Your task to perform on an android device: move an email to a new category in the gmail app Image 0: 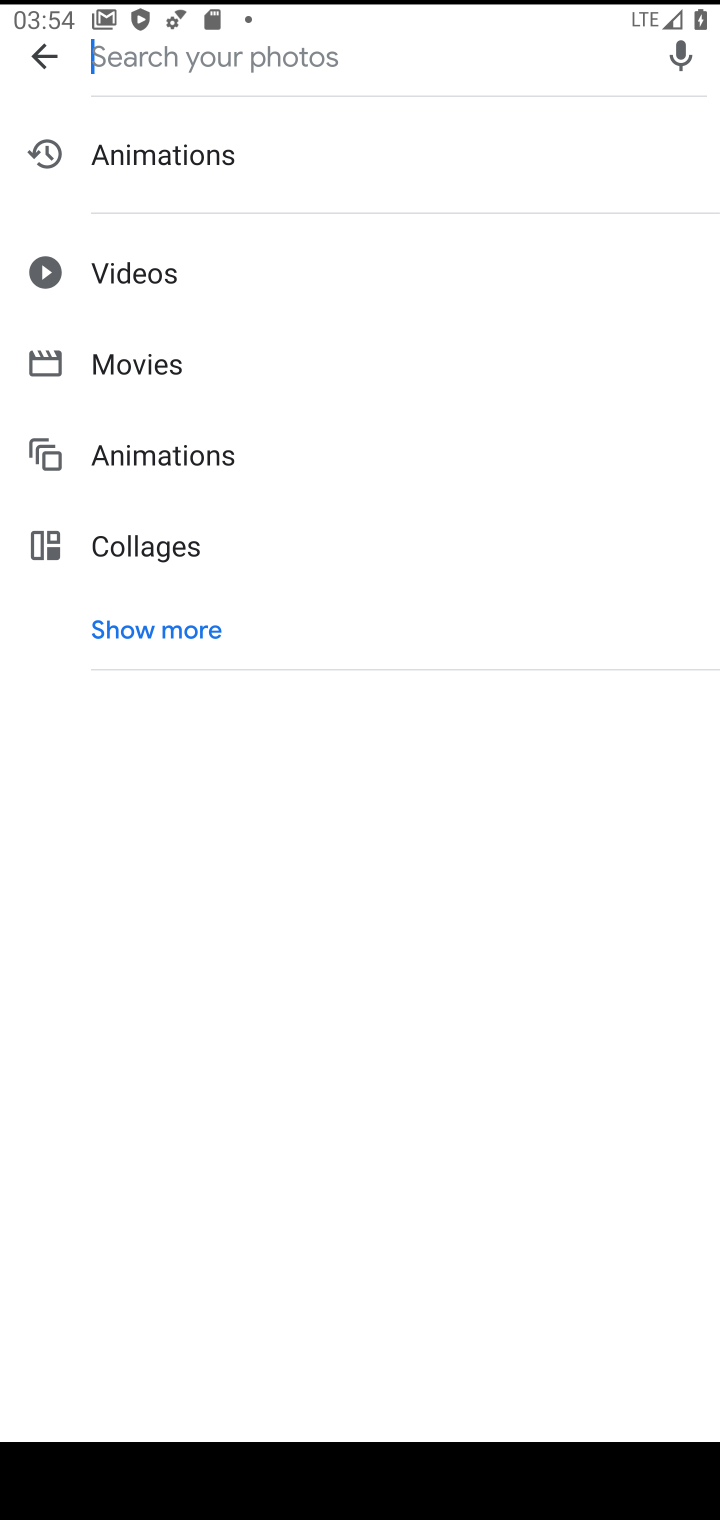
Step 0: click (34, 38)
Your task to perform on an android device: move an email to a new category in the gmail app Image 1: 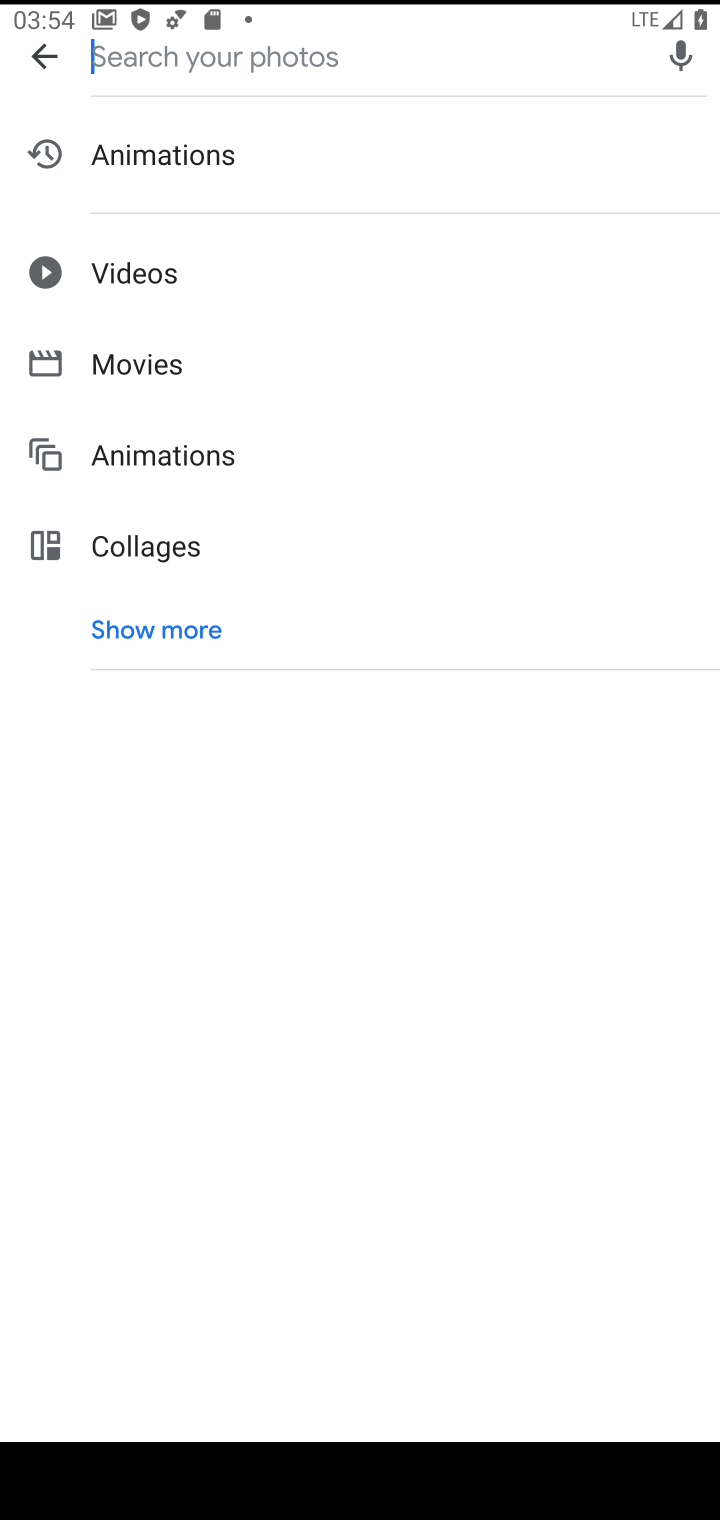
Step 1: click (37, 38)
Your task to perform on an android device: move an email to a new category in the gmail app Image 2: 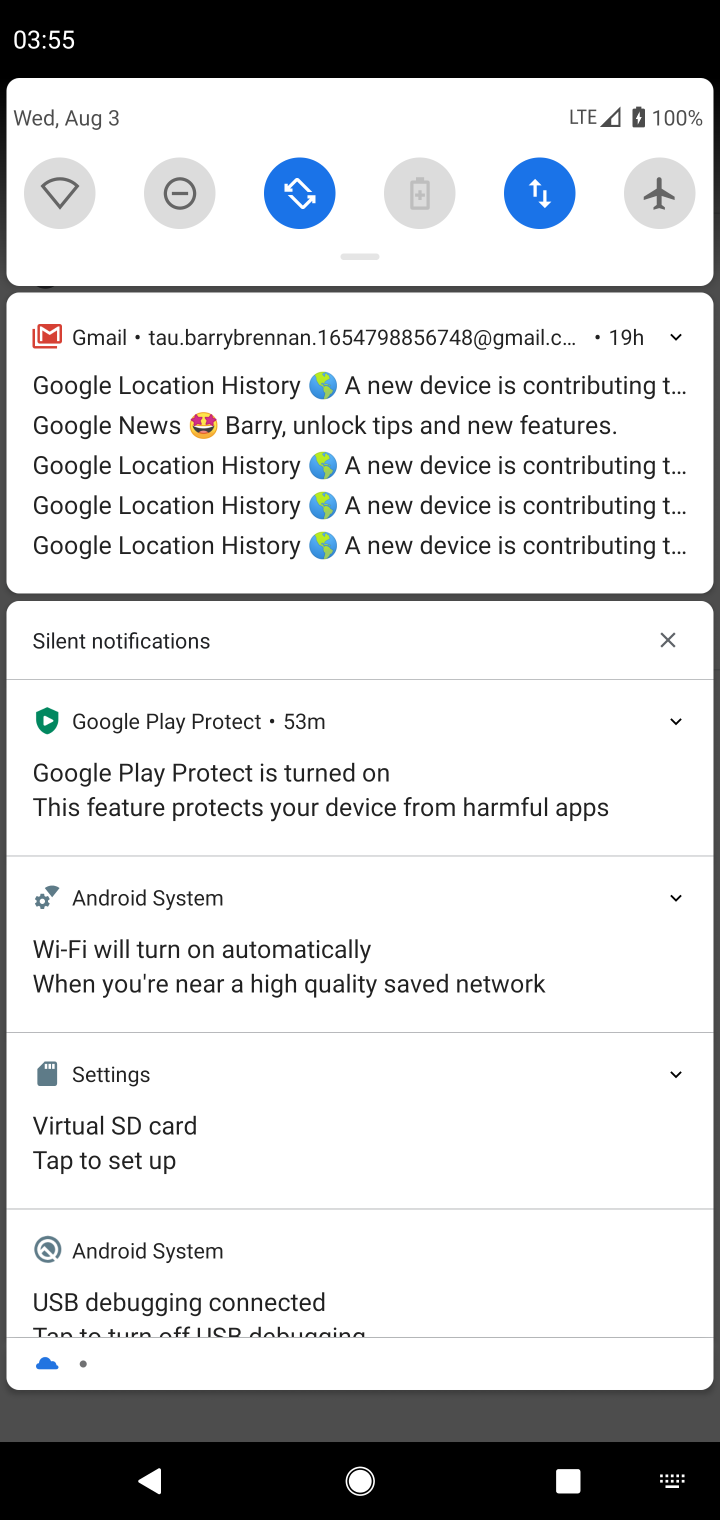
Step 2: press back button
Your task to perform on an android device: move an email to a new category in the gmail app Image 3: 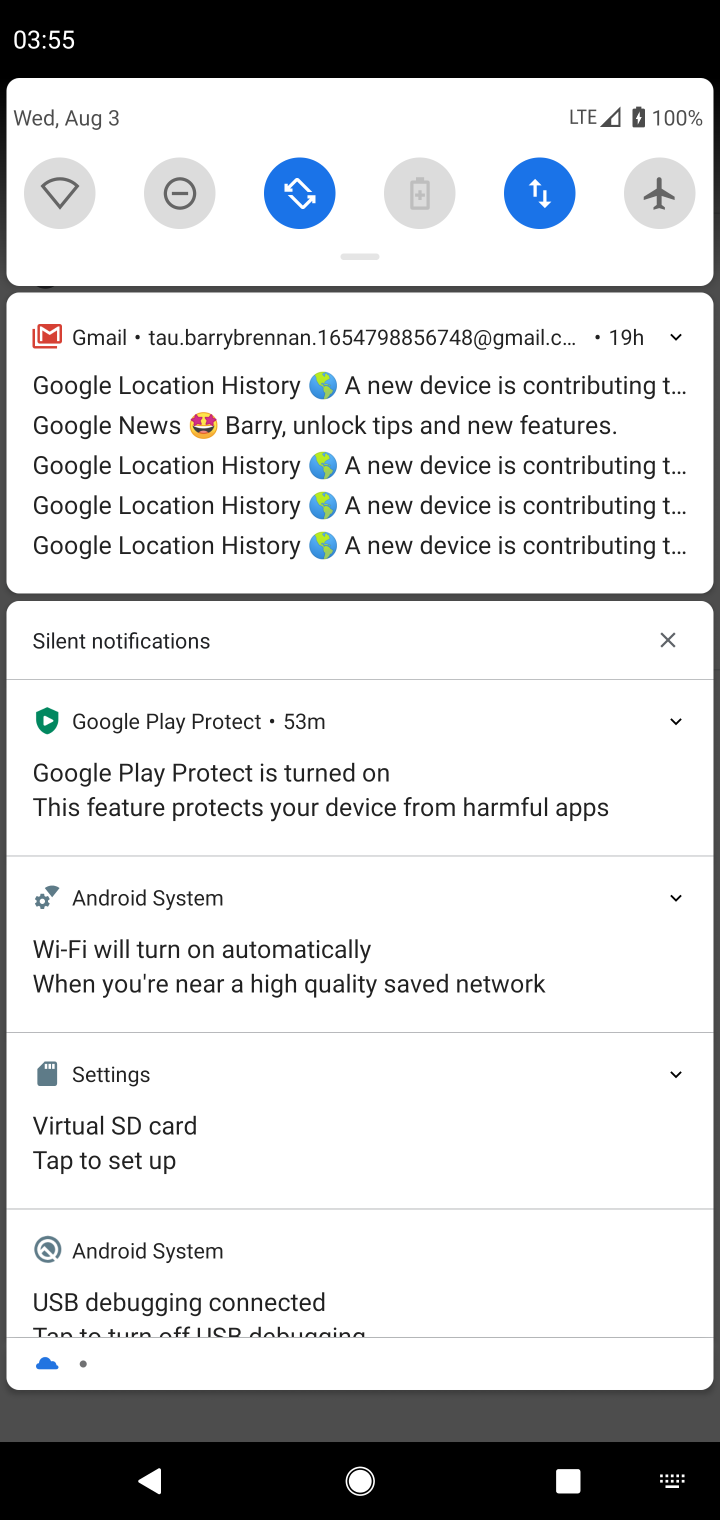
Step 3: press back button
Your task to perform on an android device: move an email to a new category in the gmail app Image 4: 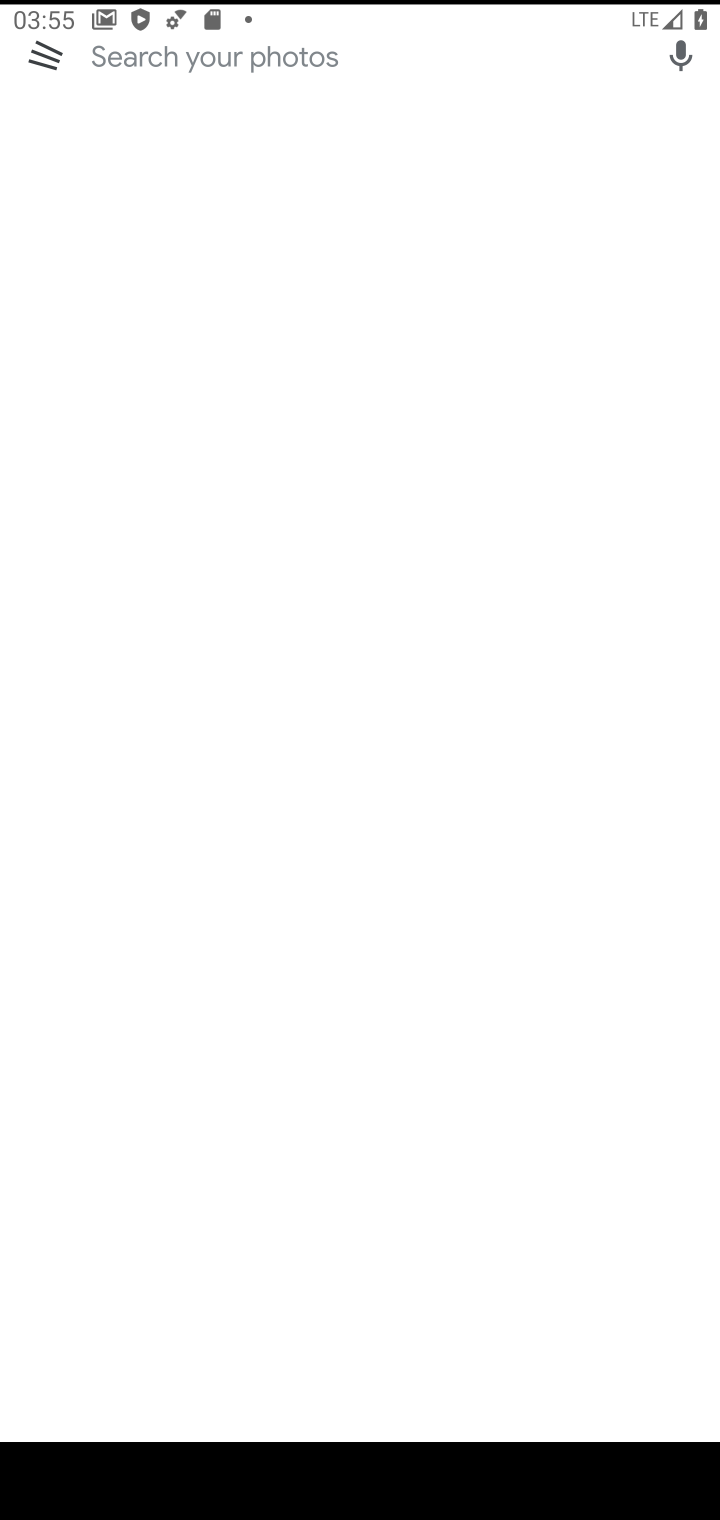
Step 4: press home button
Your task to perform on an android device: move an email to a new category in the gmail app Image 5: 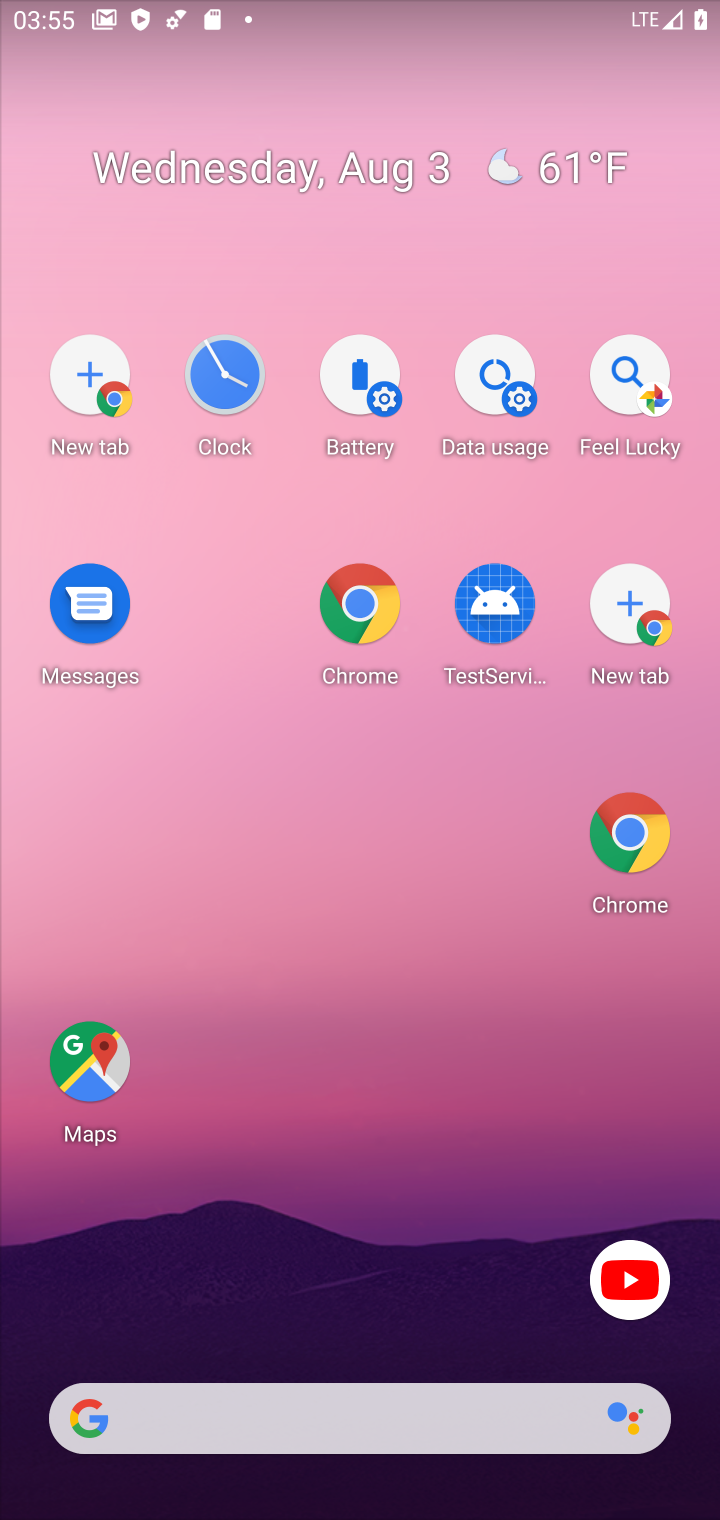
Step 5: drag from (486, 735) to (468, 646)
Your task to perform on an android device: move an email to a new category in the gmail app Image 6: 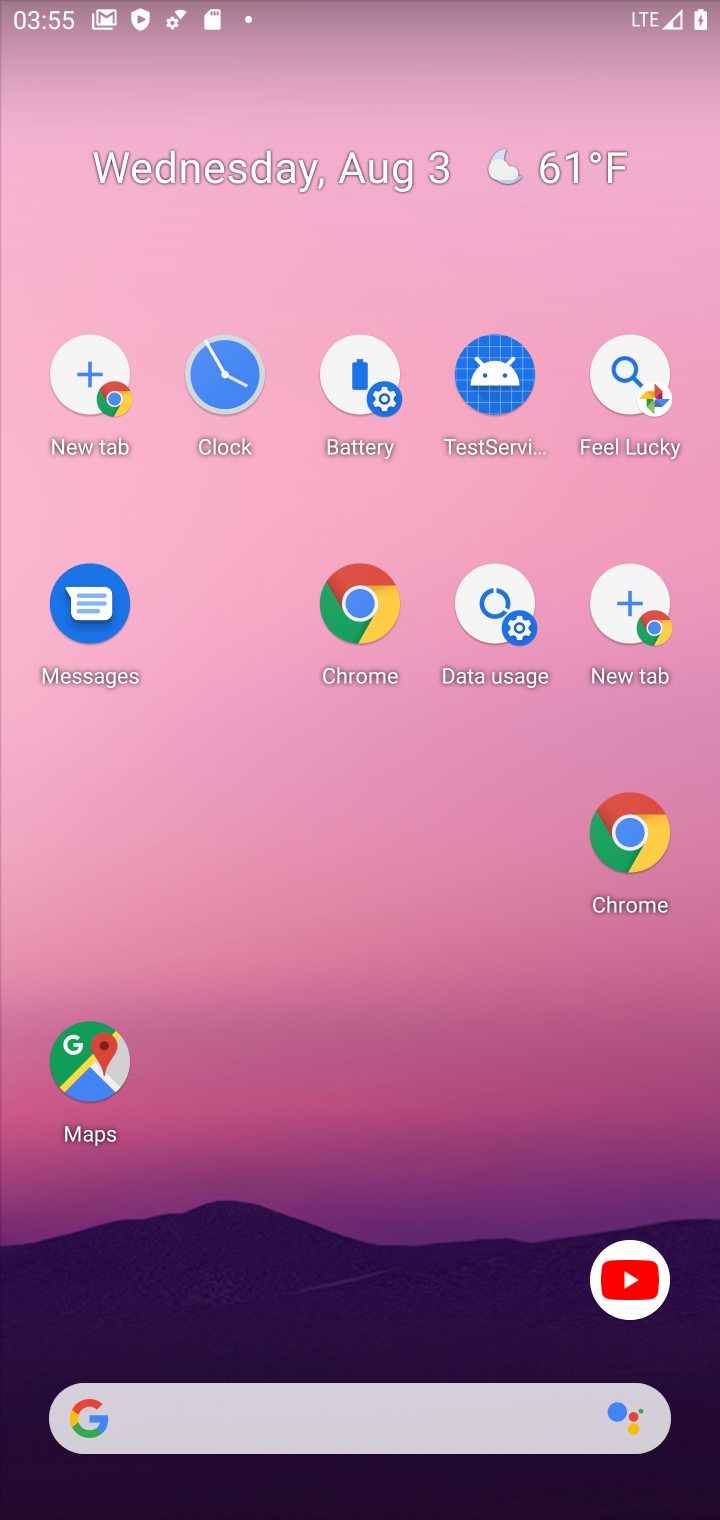
Step 6: drag from (347, 1068) to (399, 354)
Your task to perform on an android device: move an email to a new category in the gmail app Image 7: 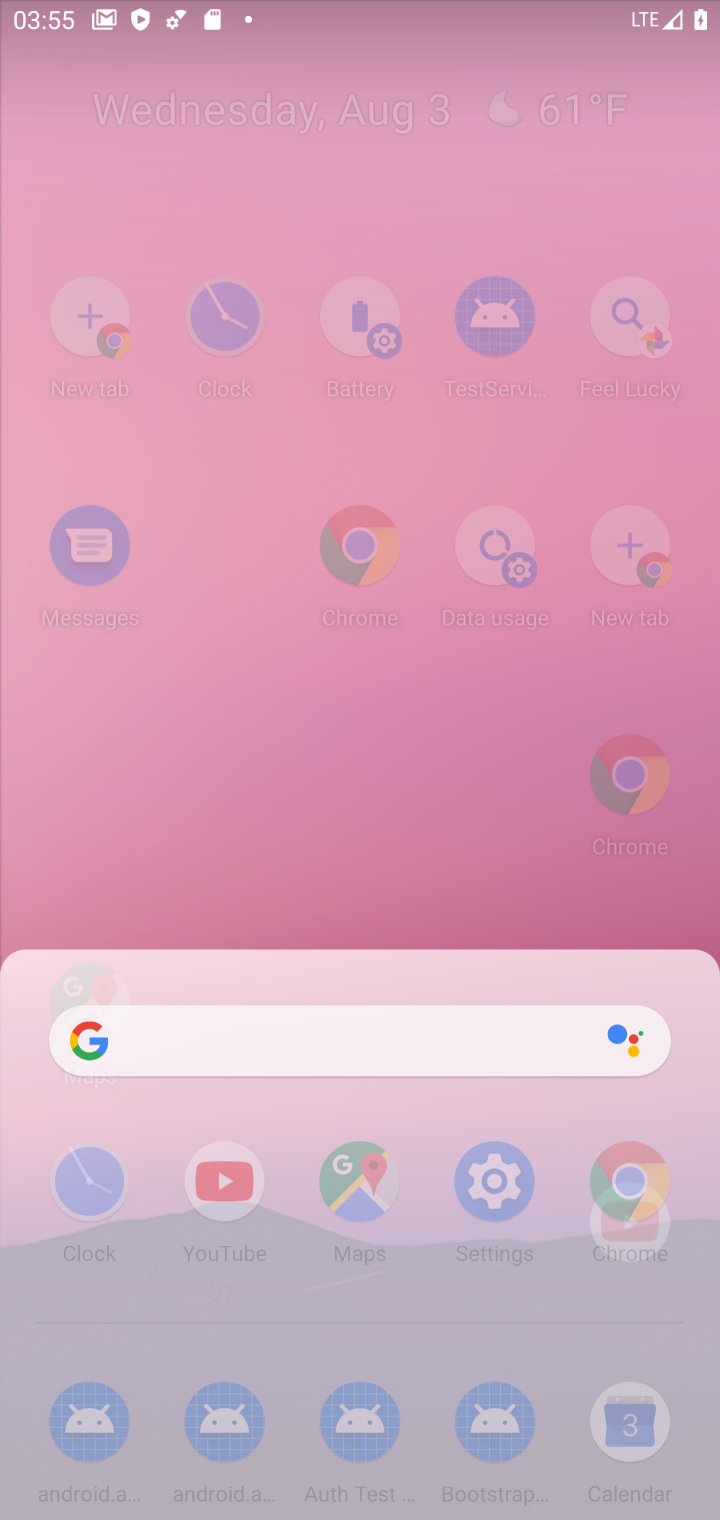
Step 7: drag from (517, 1020) to (397, 215)
Your task to perform on an android device: move an email to a new category in the gmail app Image 8: 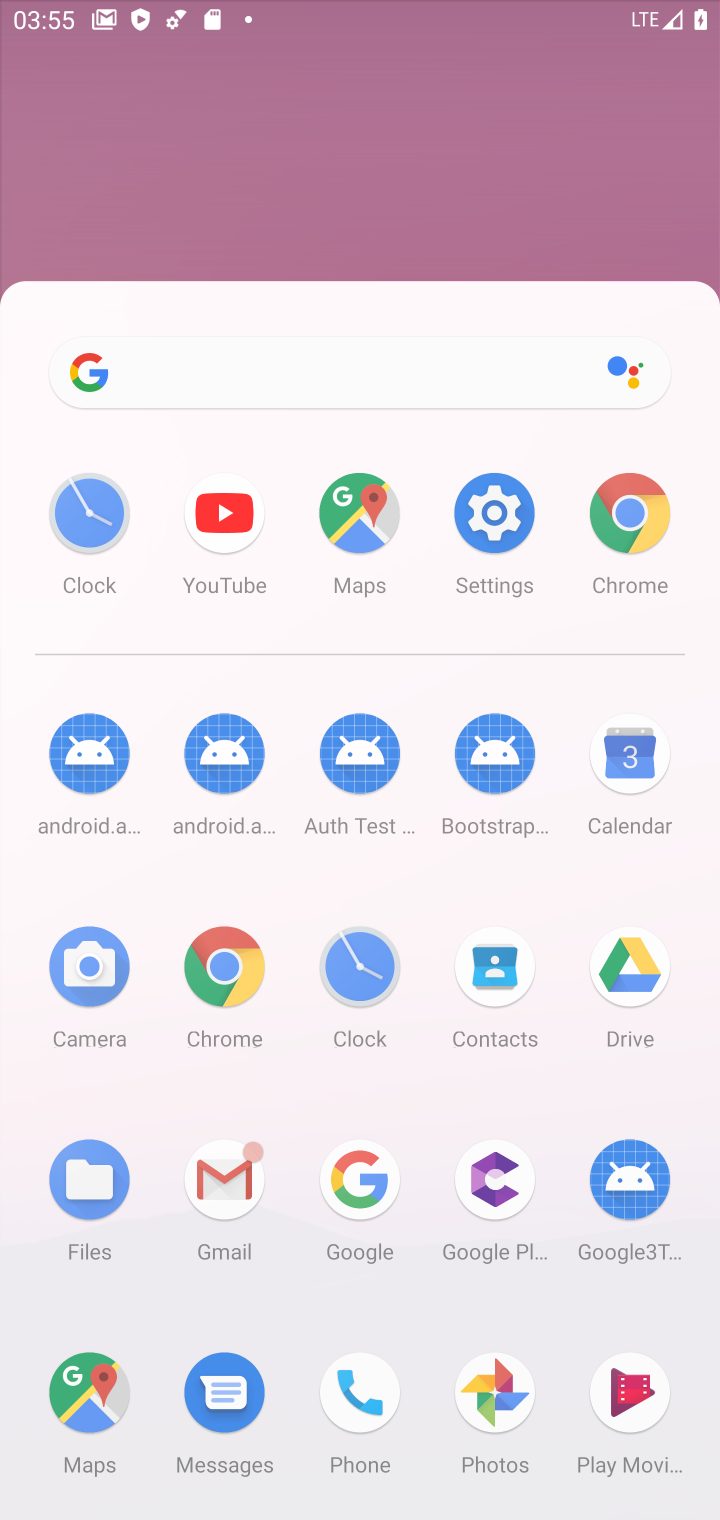
Step 8: drag from (470, 1226) to (422, 430)
Your task to perform on an android device: move an email to a new category in the gmail app Image 9: 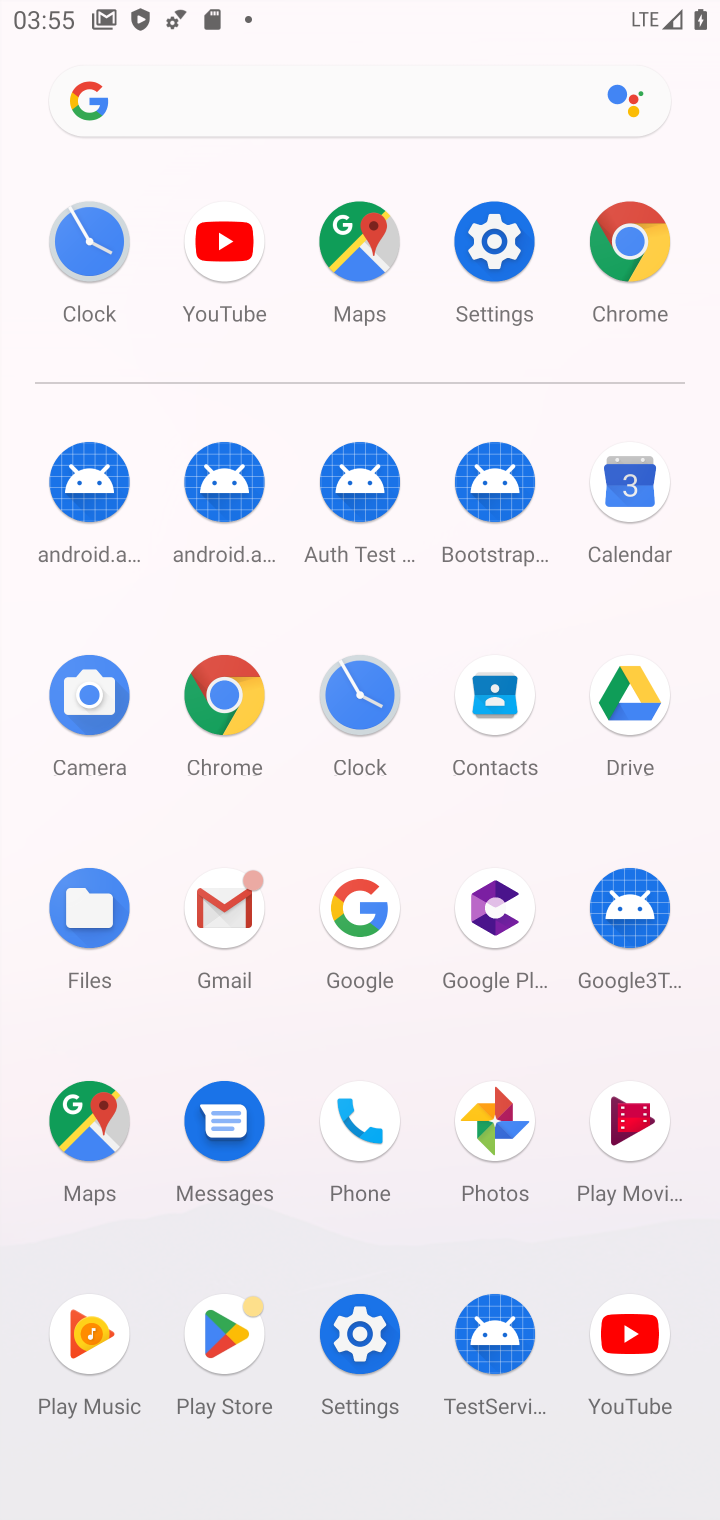
Step 9: click (197, 915)
Your task to perform on an android device: move an email to a new category in the gmail app Image 10: 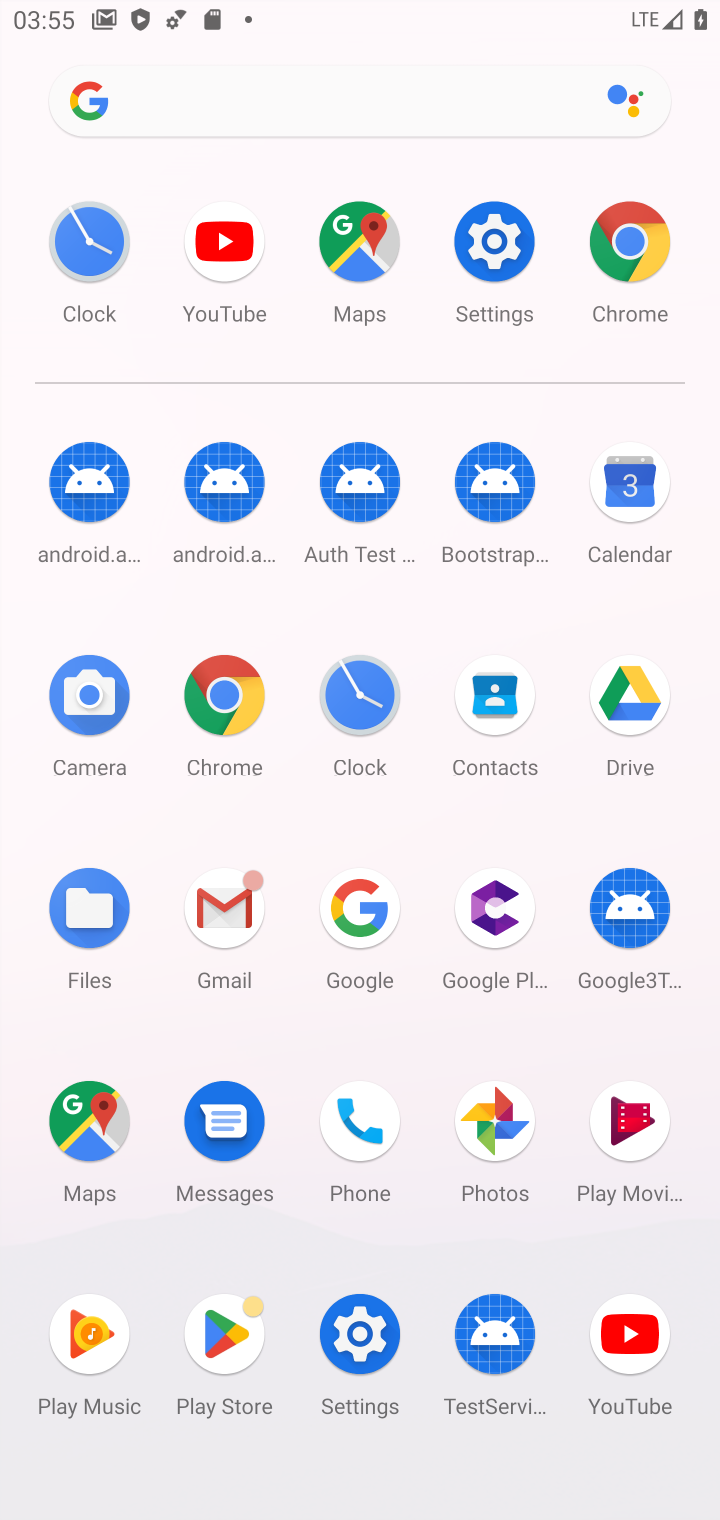
Step 10: click (227, 861)
Your task to perform on an android device: move an email to a new category in the gmail app Image 11: 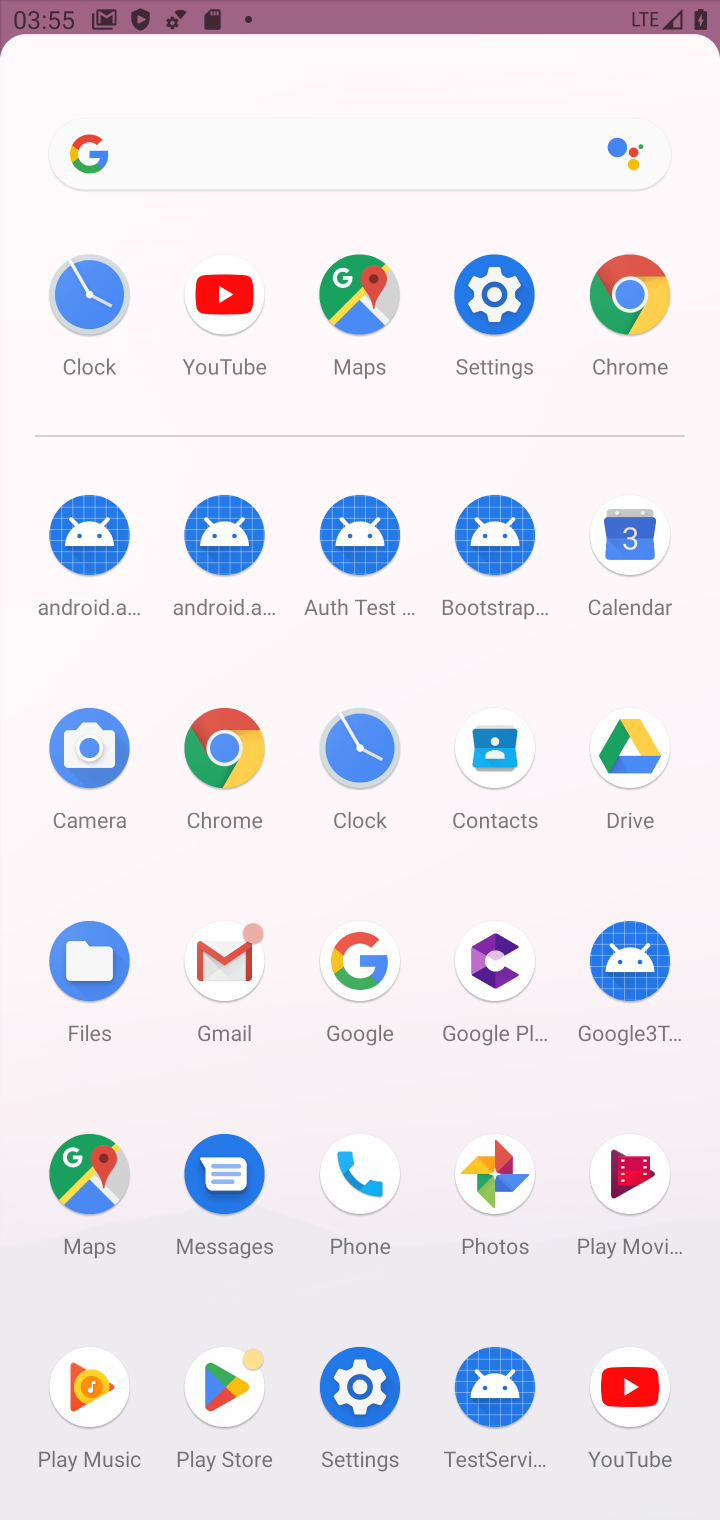
Step 11: click (241, 929)
Your task to perform on an android device: move an email to a new category in the gmail app Image 12: 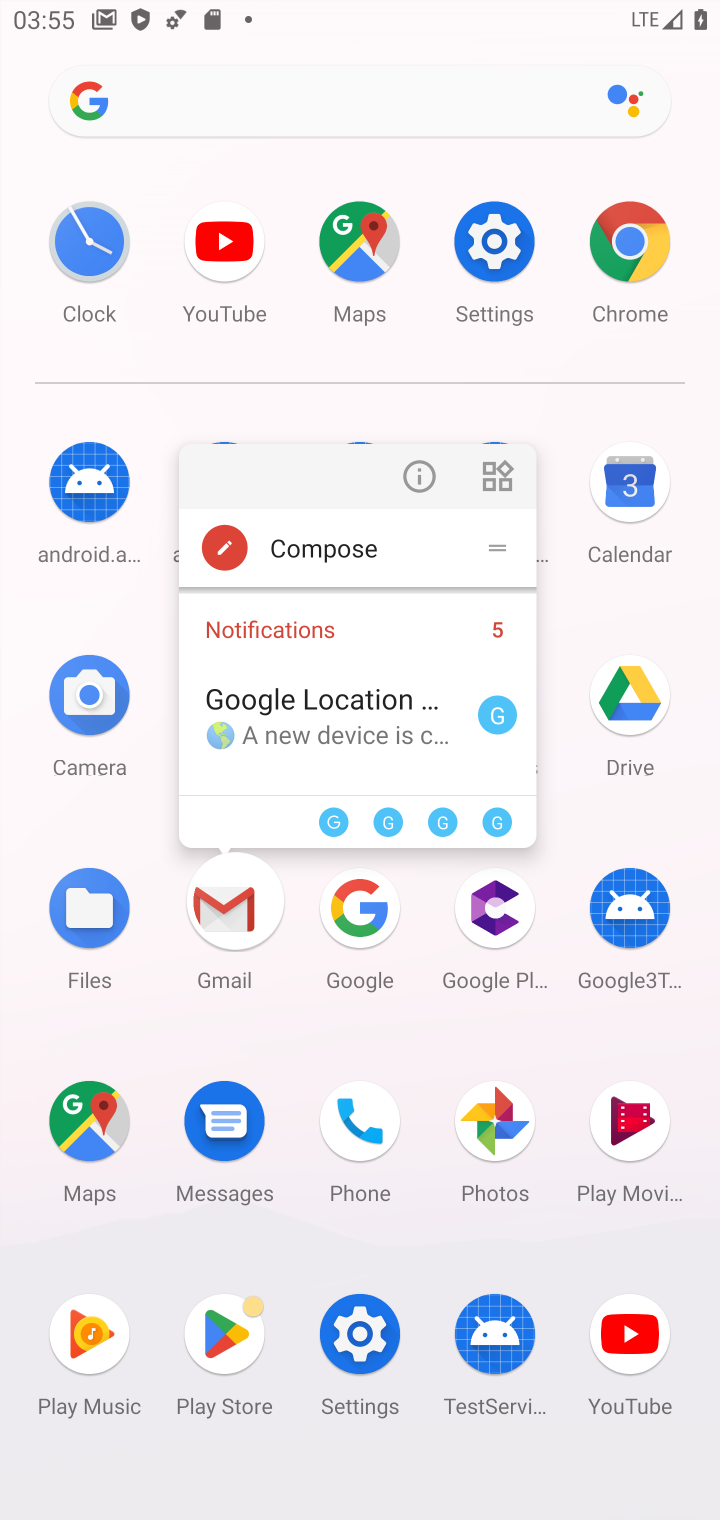
Step 12: click (238, 933)
Your task to perform on an android device: move an email to a new category in the gmail app Image 13: 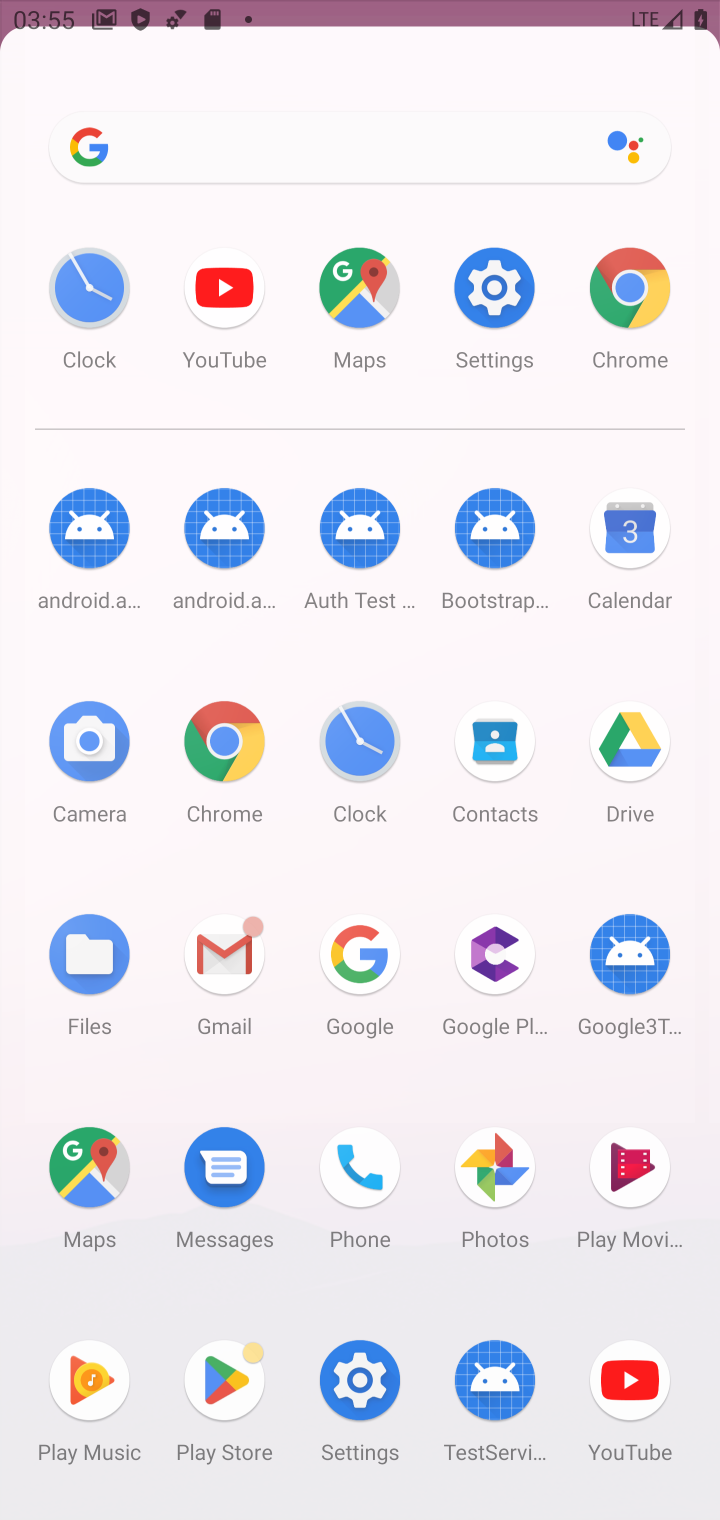
Step 13: click (243, 931)
Your task to perform on an android device: move an email to a new category in the gmail app Image 14: 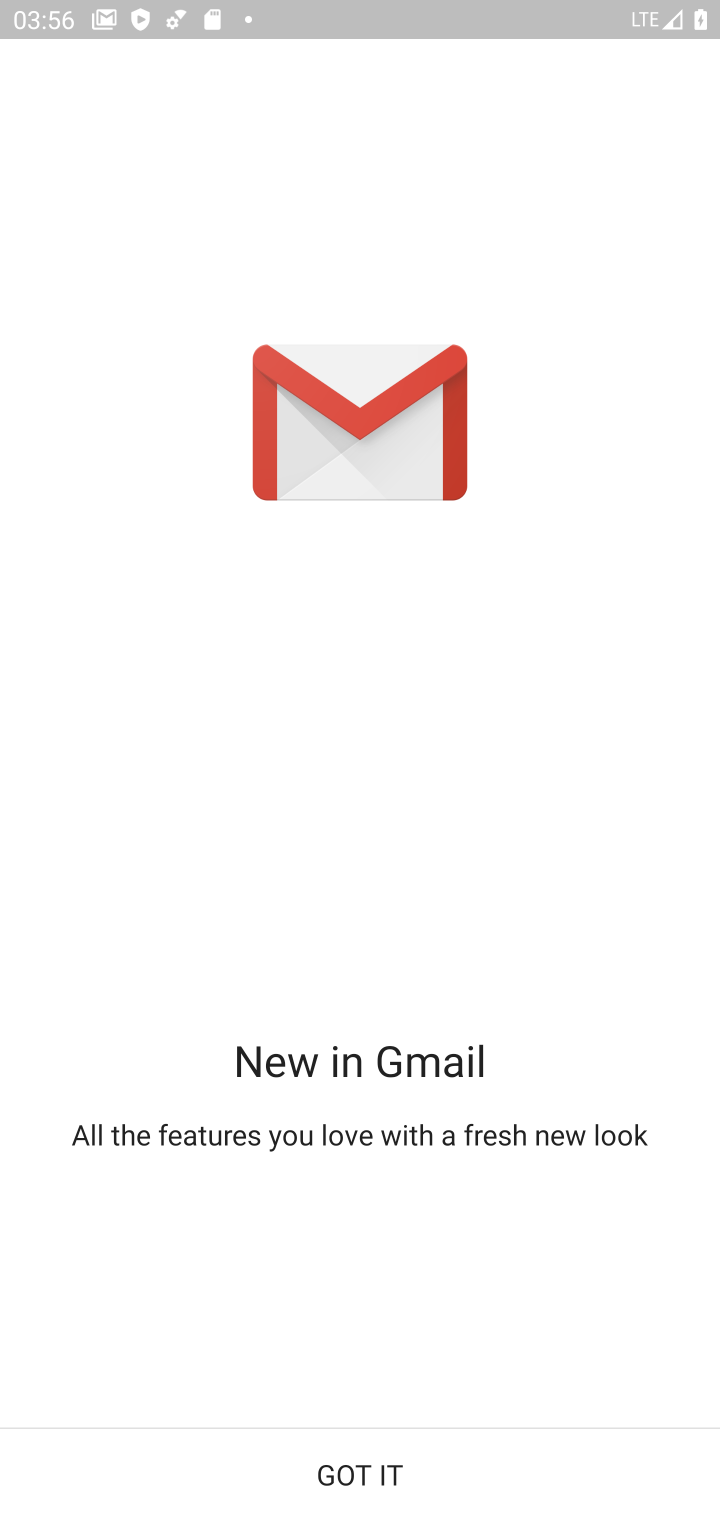
Step 14: click (388, 1435)
Your task to perform on an android device: move an email to a new category in the gmail app Image 15: 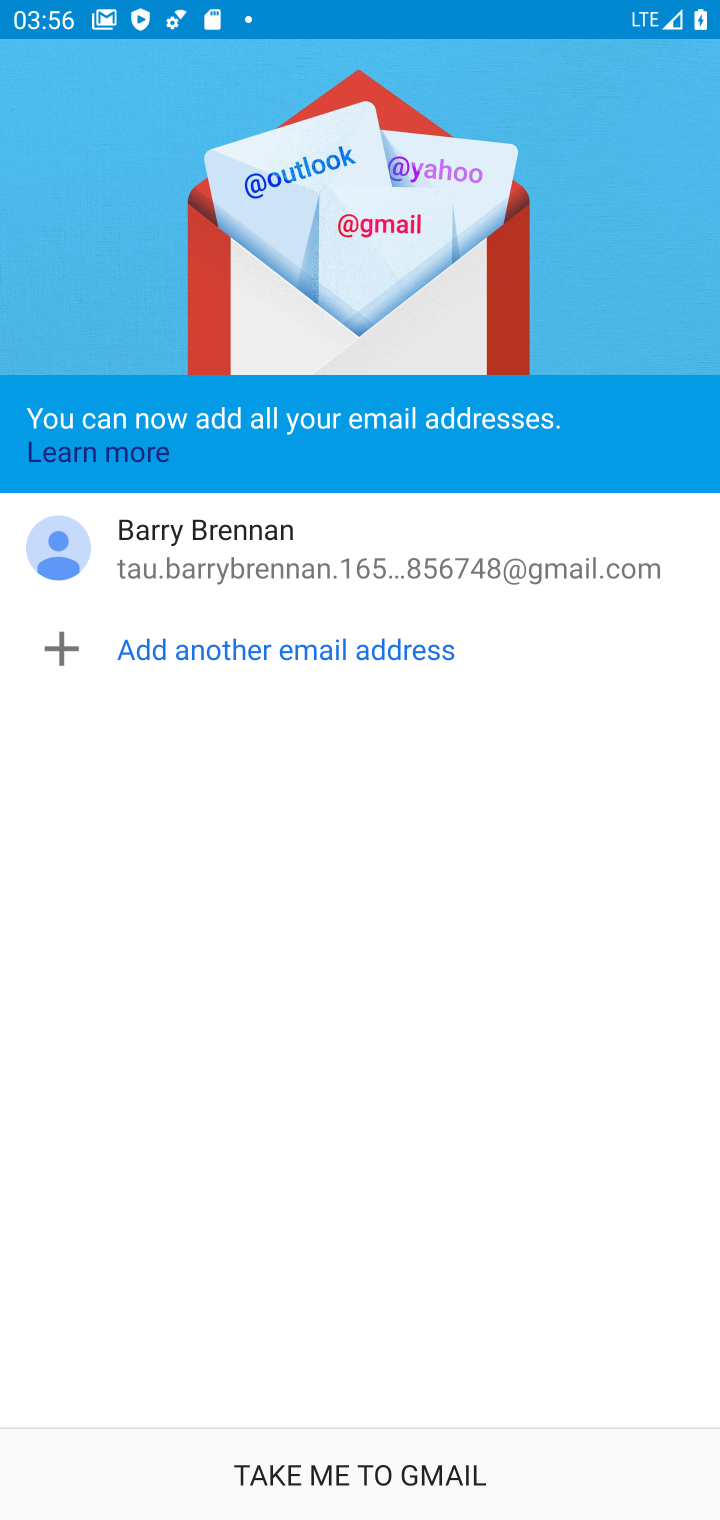
Step 15: click (442, 1464)
Your task to perform on an android device: move an email to a new category in the gmail app Image 16: 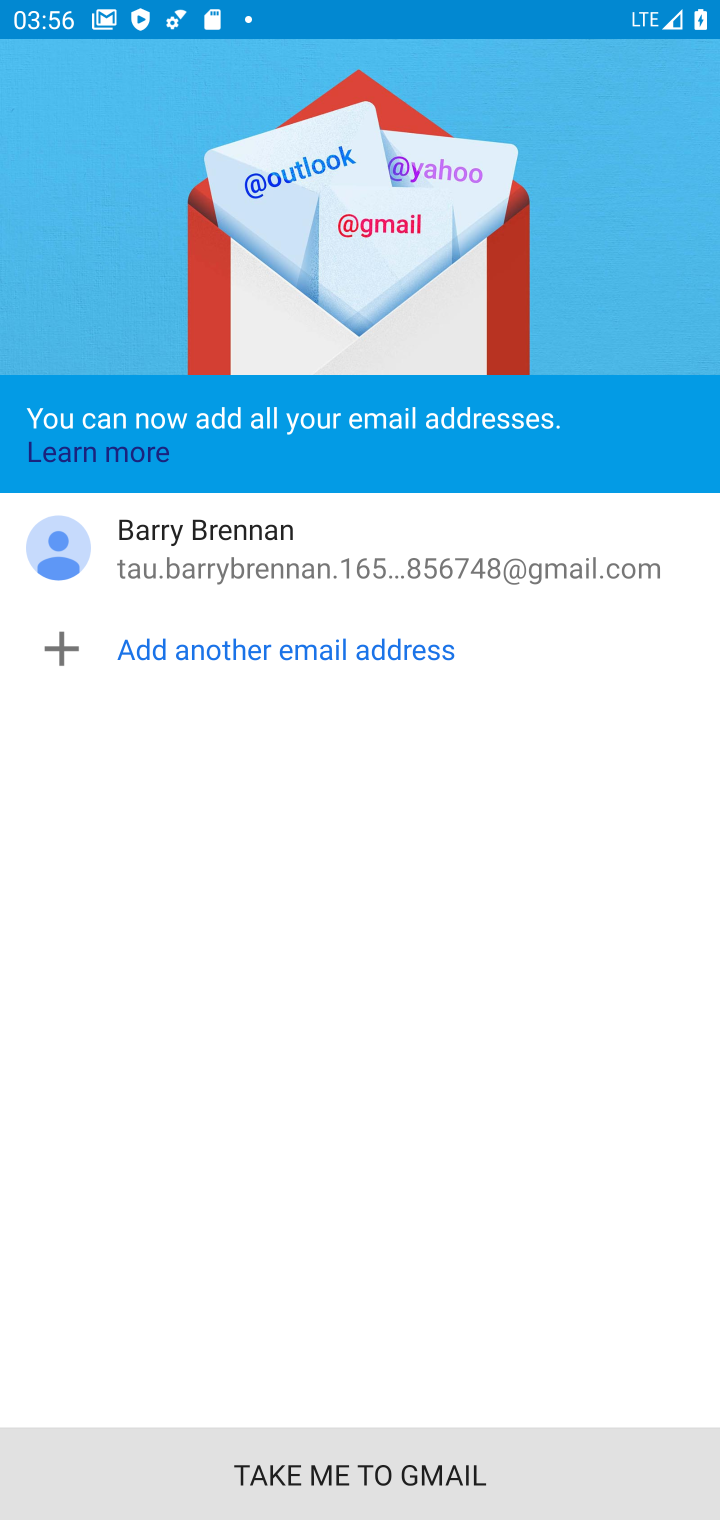
Step 16: click (472, 1456)
Your task to perform on an android device: move an email to a new category in the gmail app Image 17: 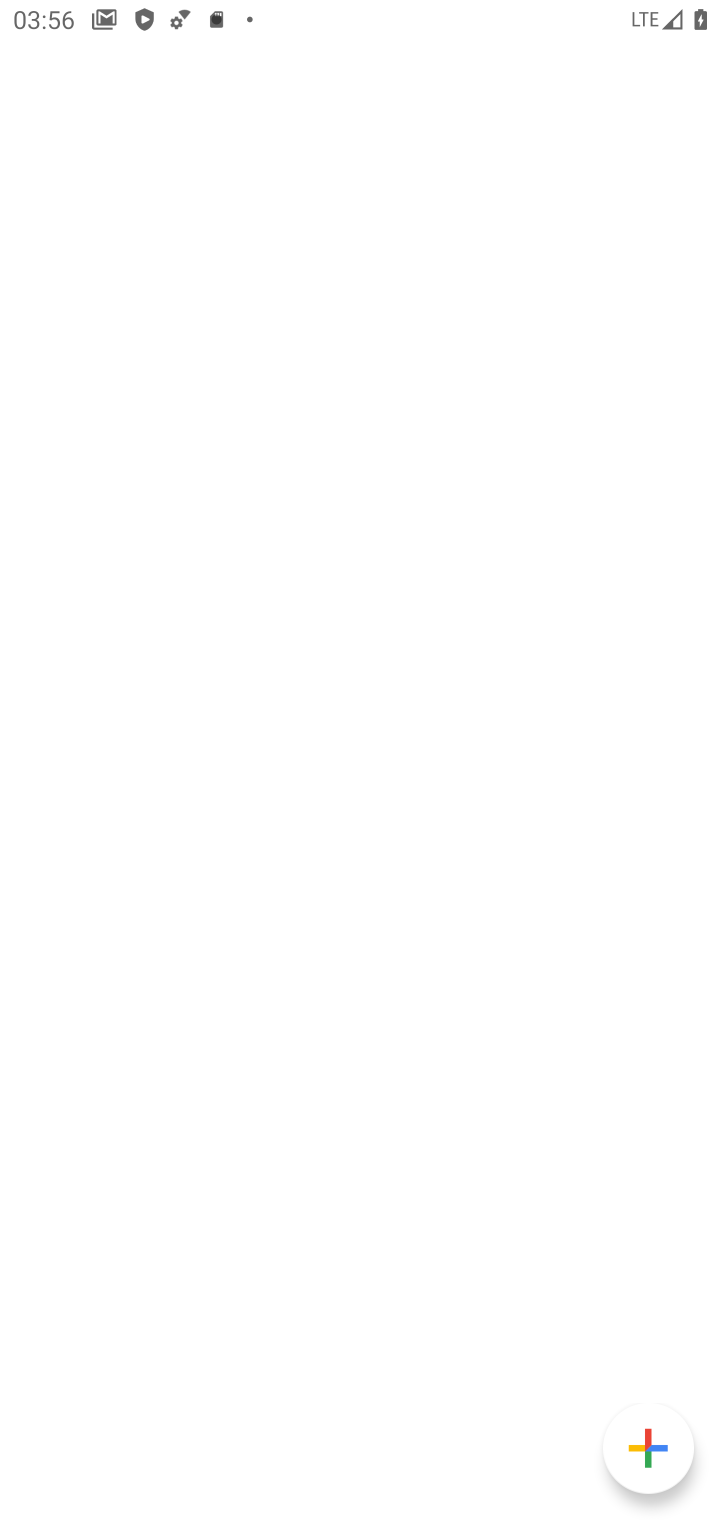
Step 17: click (485, 1465)
Your task to perform on an android device: move an email to a new category in the gmail app Image 18: 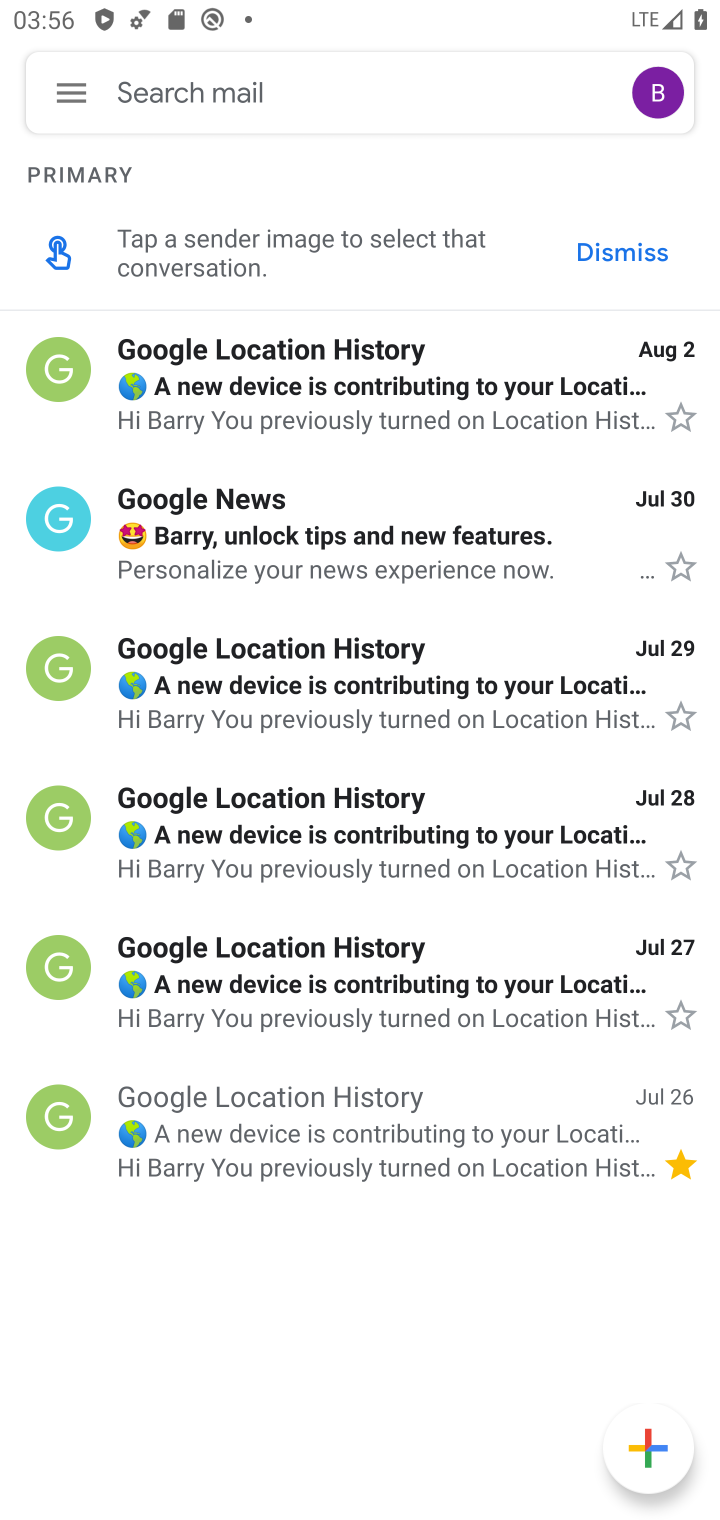
Step 18: click (678, 410)
Your task to perform on an android device: move an email to a new category in the gmail app Image 19: 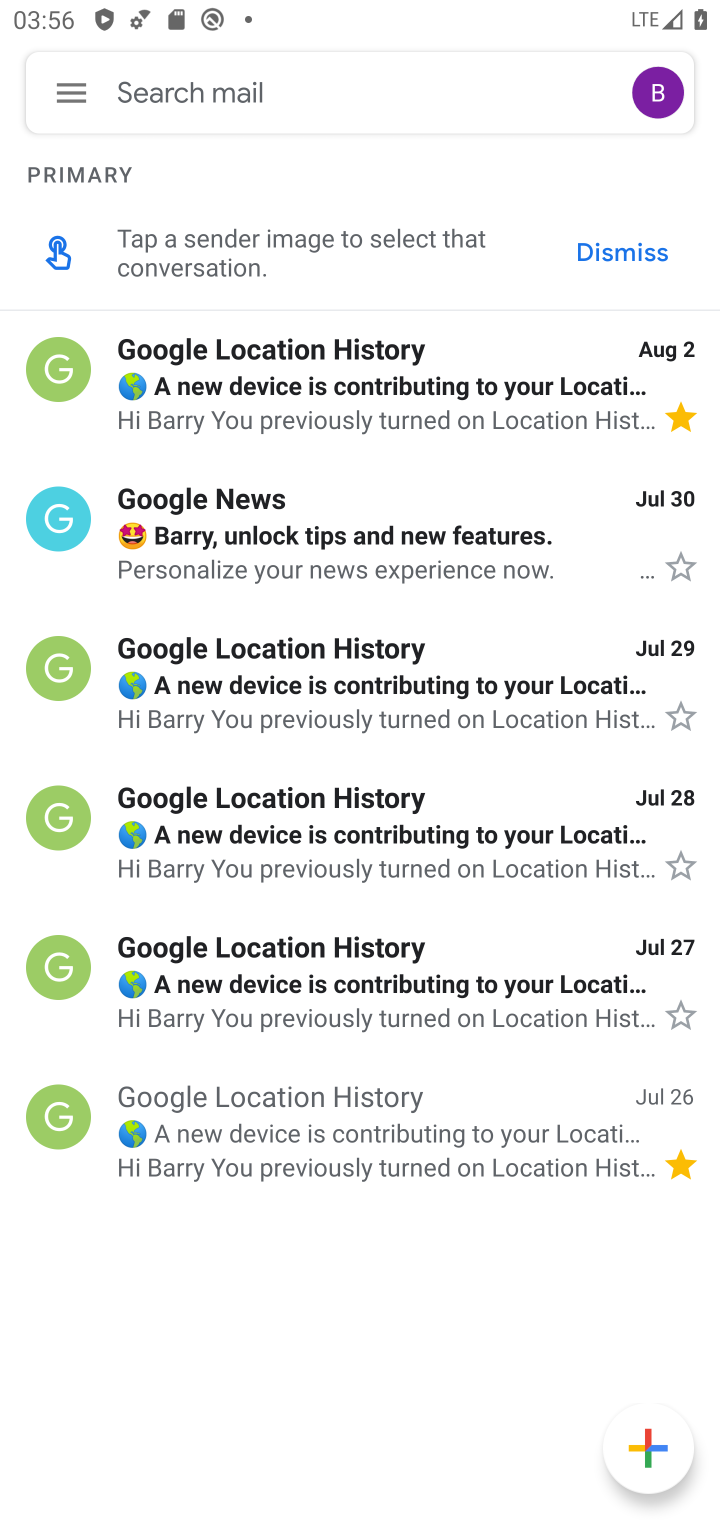
Step 19: task complete